Your task to perform on an android device: Search for vegetarian restaurants on Maps Image 0: 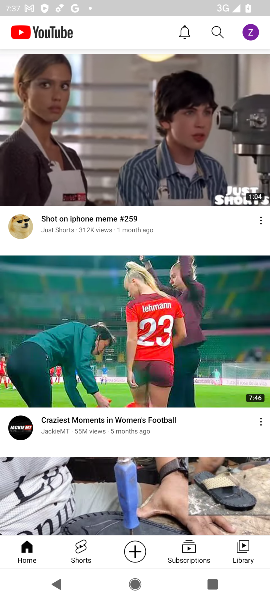
Step 0: press home button
Your task to perform on an android device: Search for vegetarian restaurants on Maps Image 1: 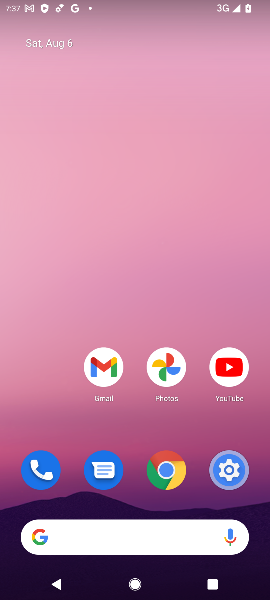
Step 1: drag from (133, 544) to (152, 0)
Your task to perform on an android device: Search for vegetarian restaurants on Maps Image 2: 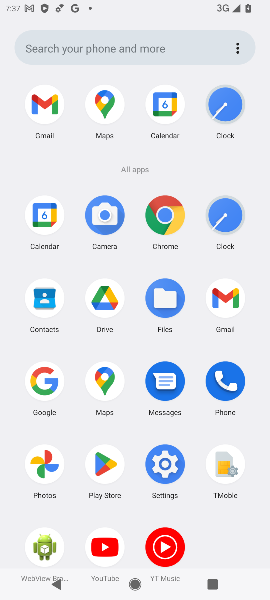
Step 2: click (104, 384)
Your task to perform on an android device: Search for vegetarian restaurants on Maps Image 3: 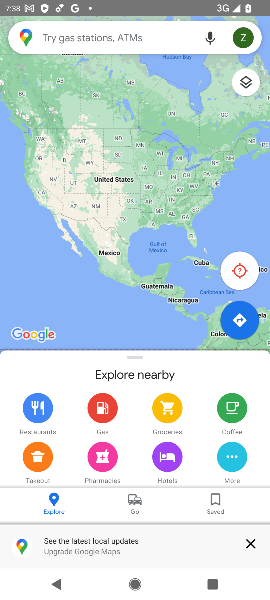
Step 3: click (118, 42)
Your task to perform on an android device: Search for vegetarian restaurants on Maps Image 4: 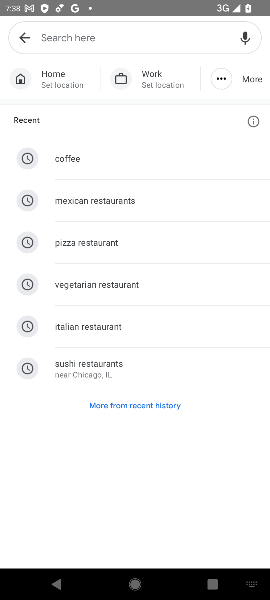
Step 4: click (113, 284)
Your task to perform on an android device: Search for vegetarian restaurants on Maps Image 5: 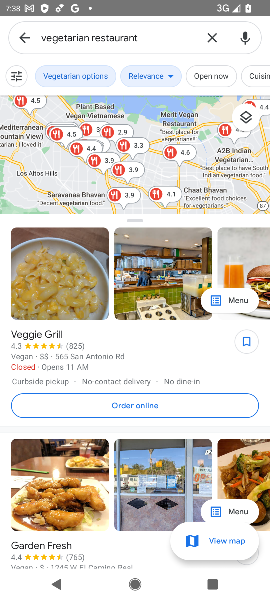
Step 5: task complete